Your task to perform on an android device: find which apps use the phone's location Image 0: 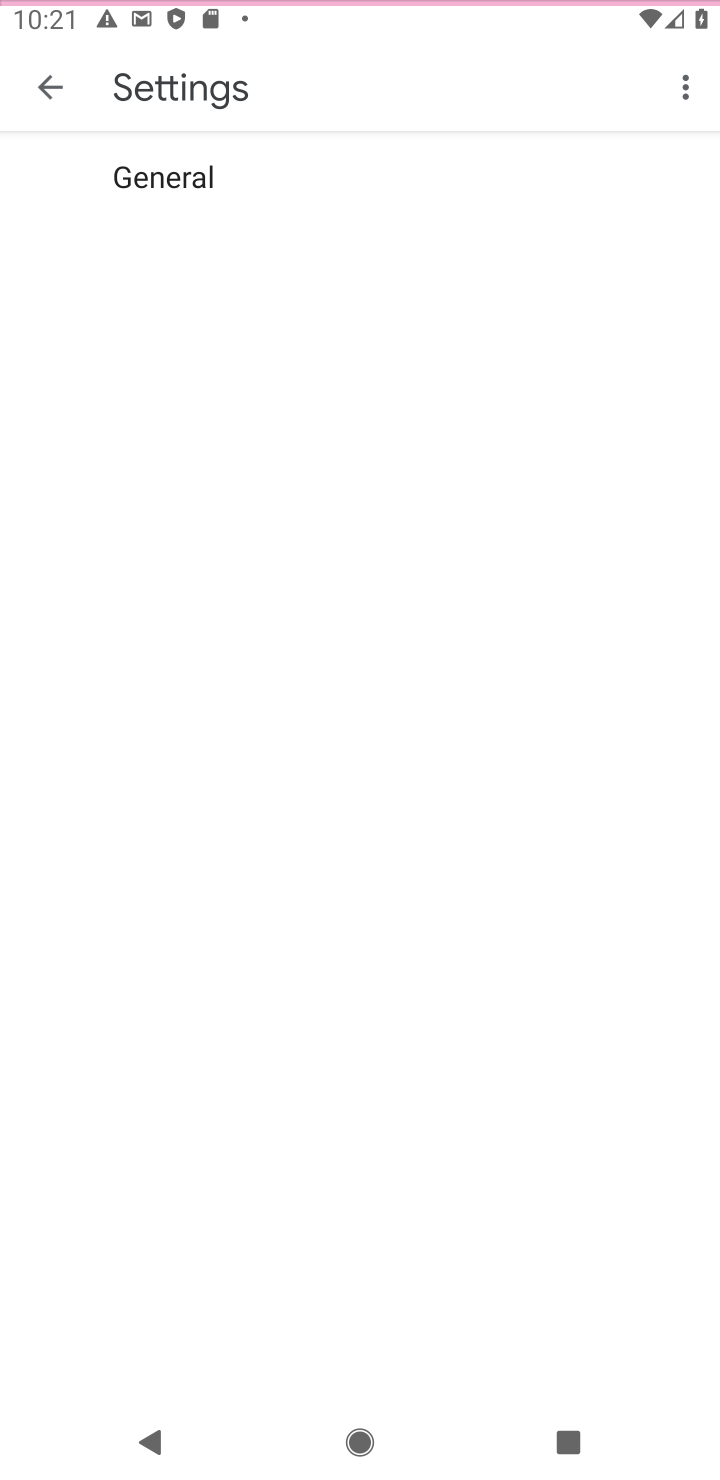
Step 0: drag from (359, 522) to (396, 1470)
Your task to perform on an android device: find which apps use the phone's location Image 1: 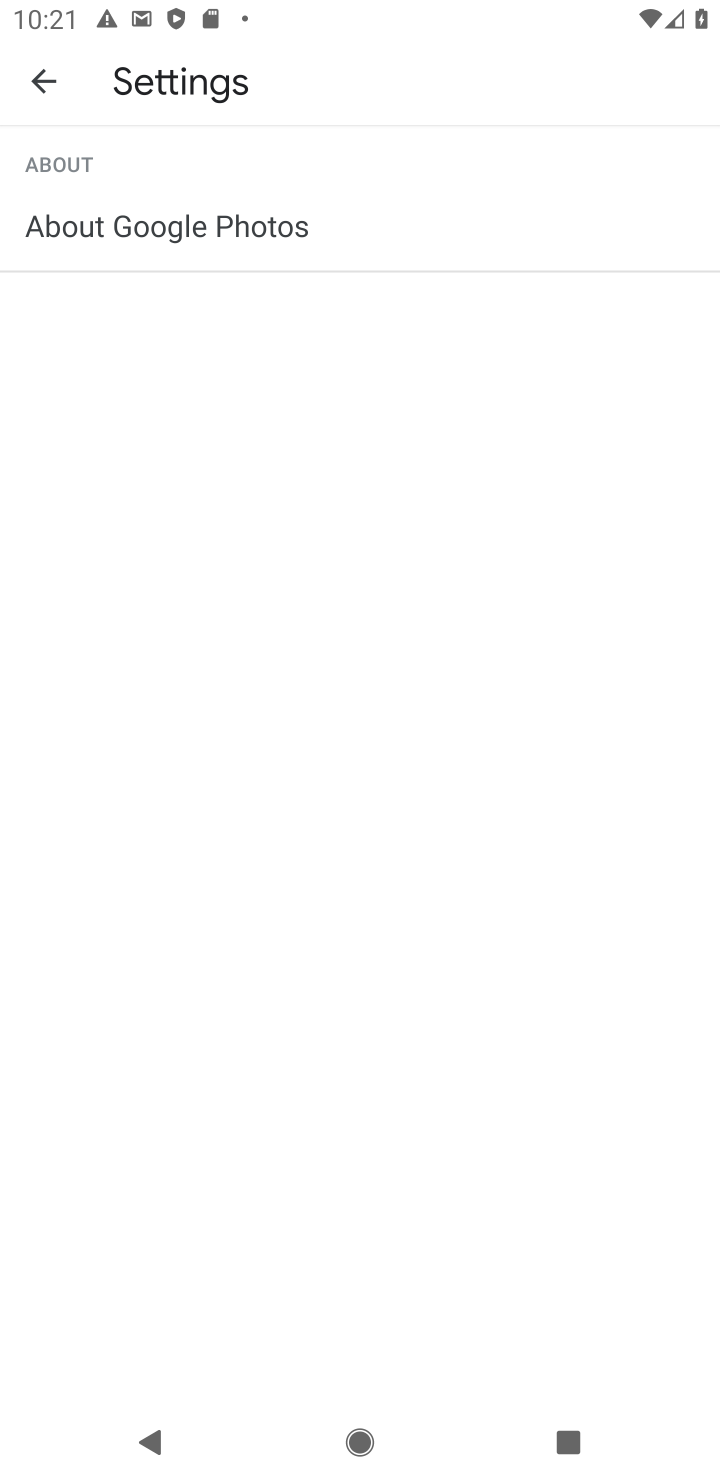
Step 1: press home button
Your task to perform on an android device: find which apps use the phone's location Image 2: 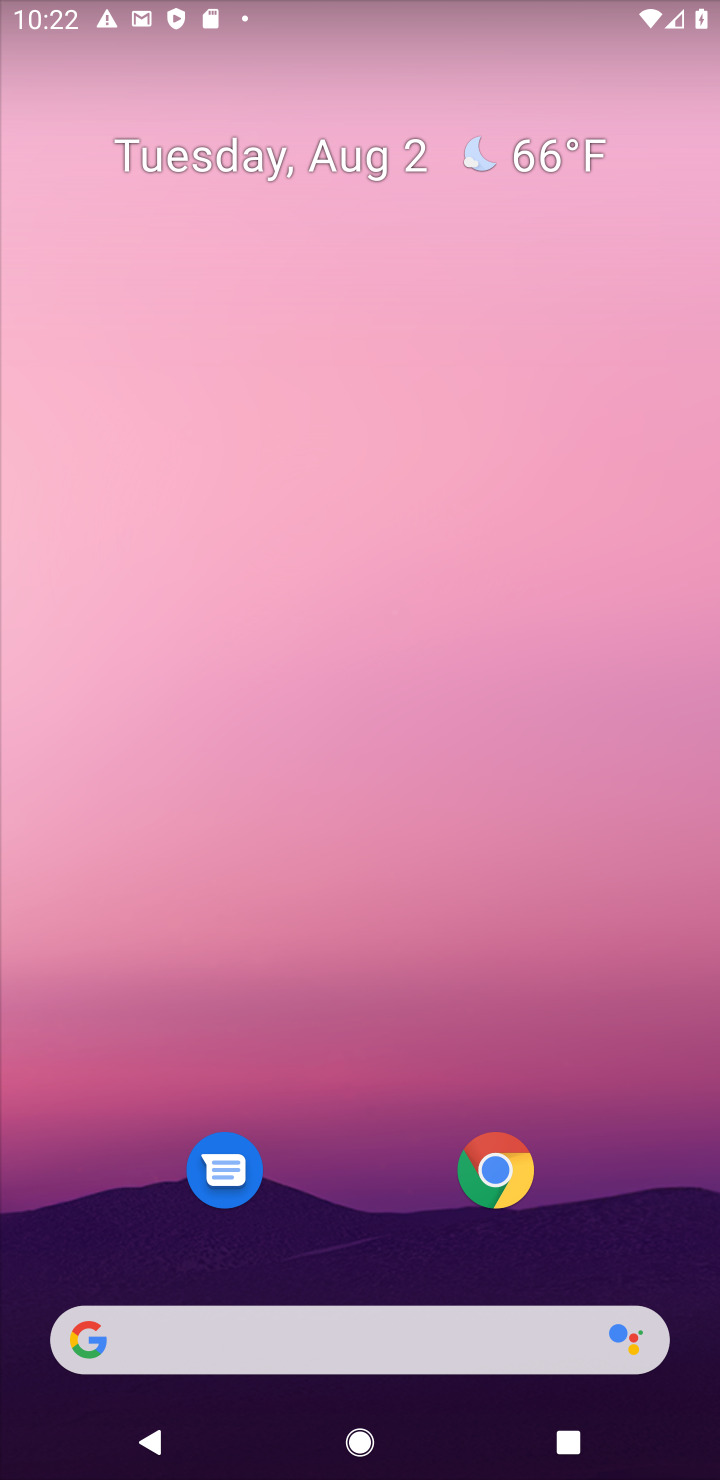
Step 2: drag from (272, 1143) to (326, 169)
Your task to perform on an android device: find which apps use the phone's location Image 3: 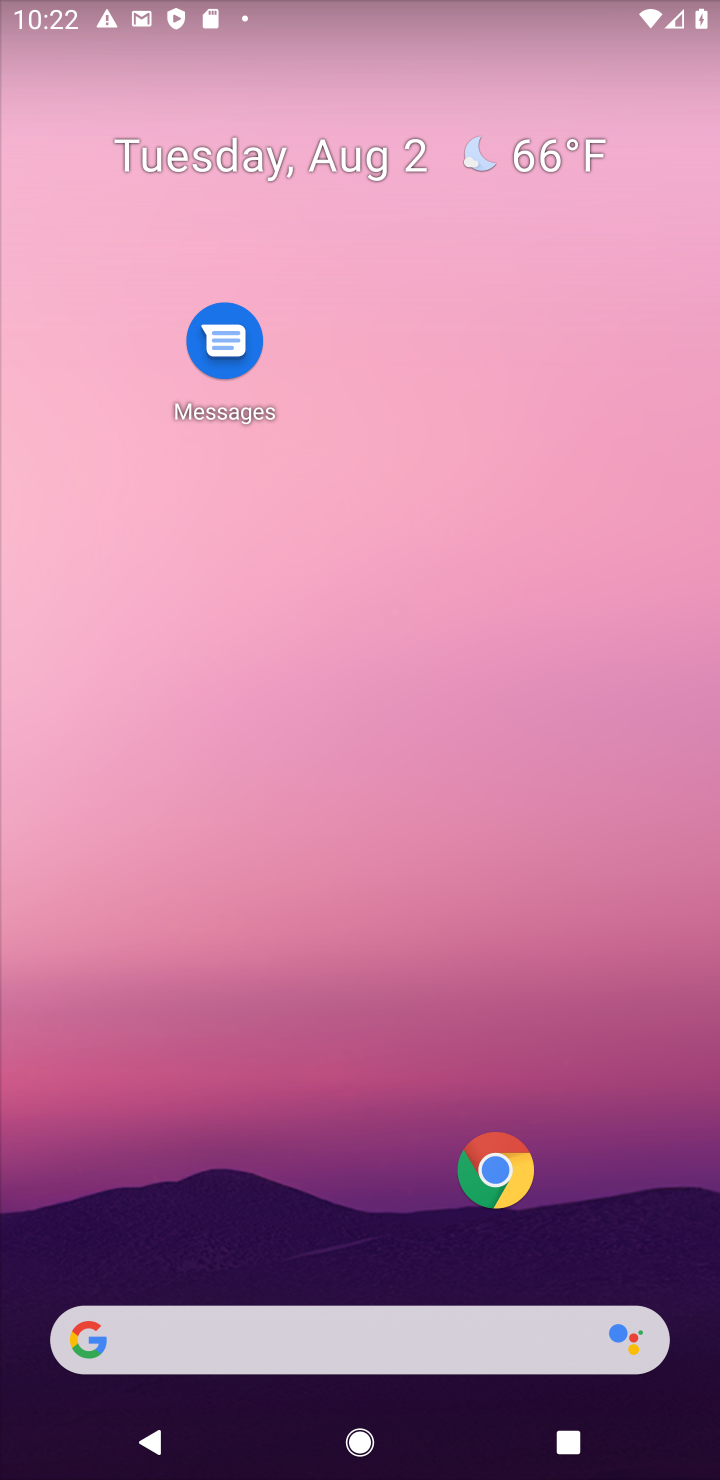
Step 3: drag from (350, 1226) to (406, 126)
Your task to perform on an android device: find which apps use the phone's location Image 4: 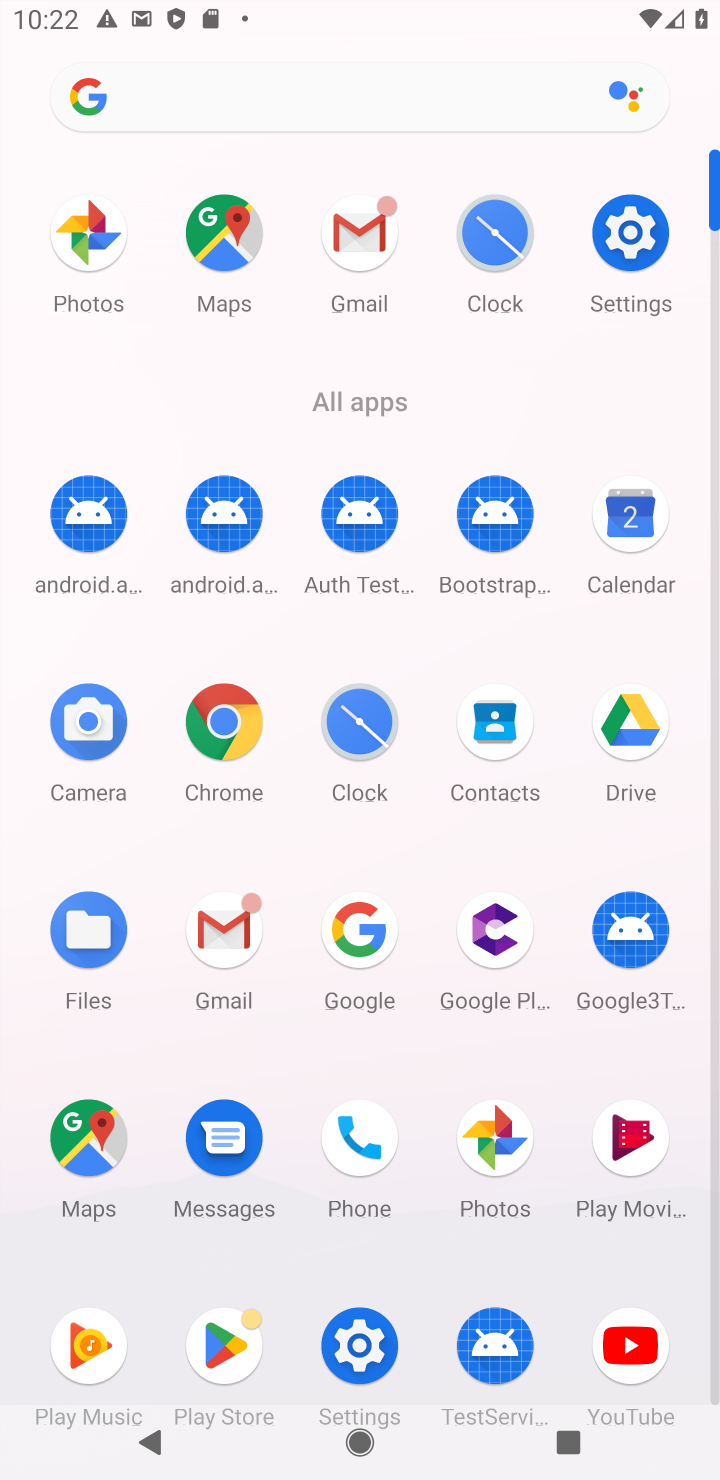
Step 4: click (214, 1333)
Your task to perform on an android device: find which apps use the phone's location Image 5: 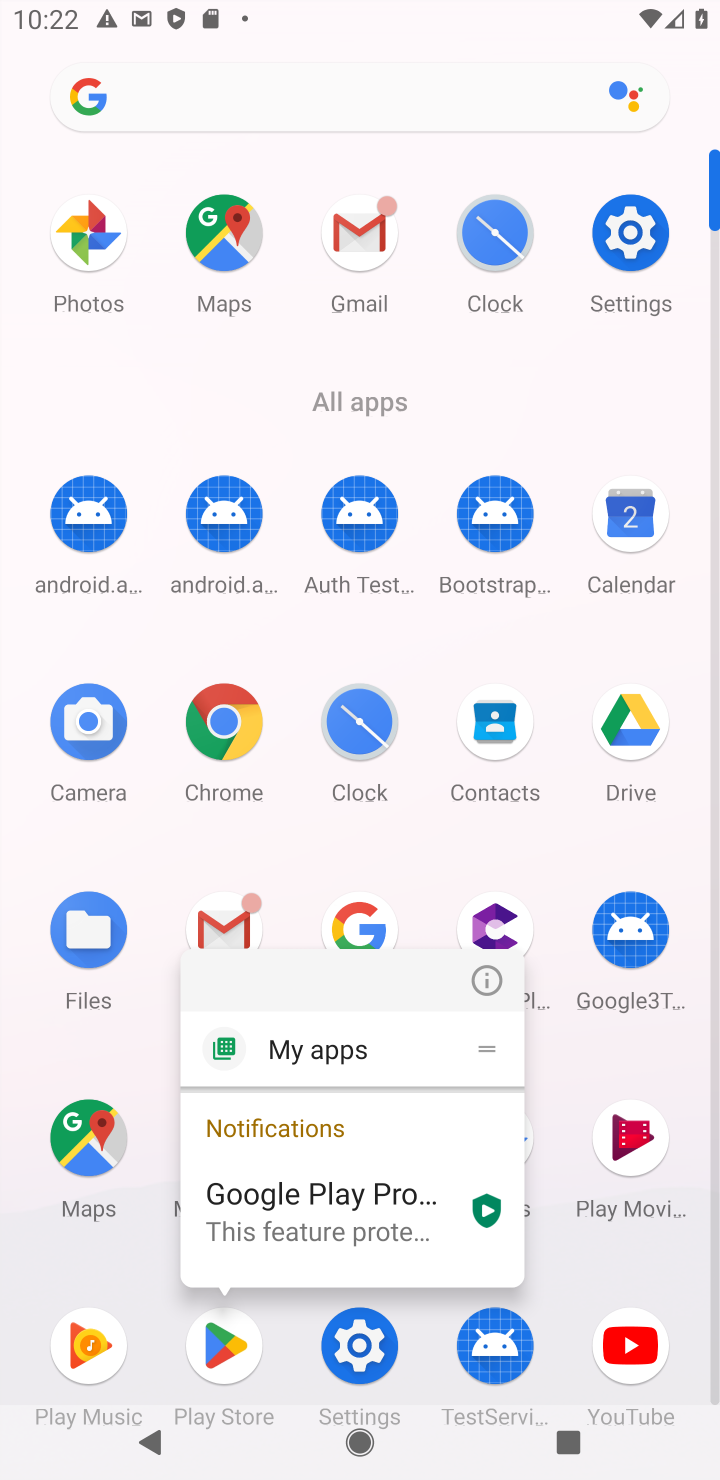
Step 5: click (487, 989)
Your task to perform on an android device: find which apps use the phone's location Image 6: 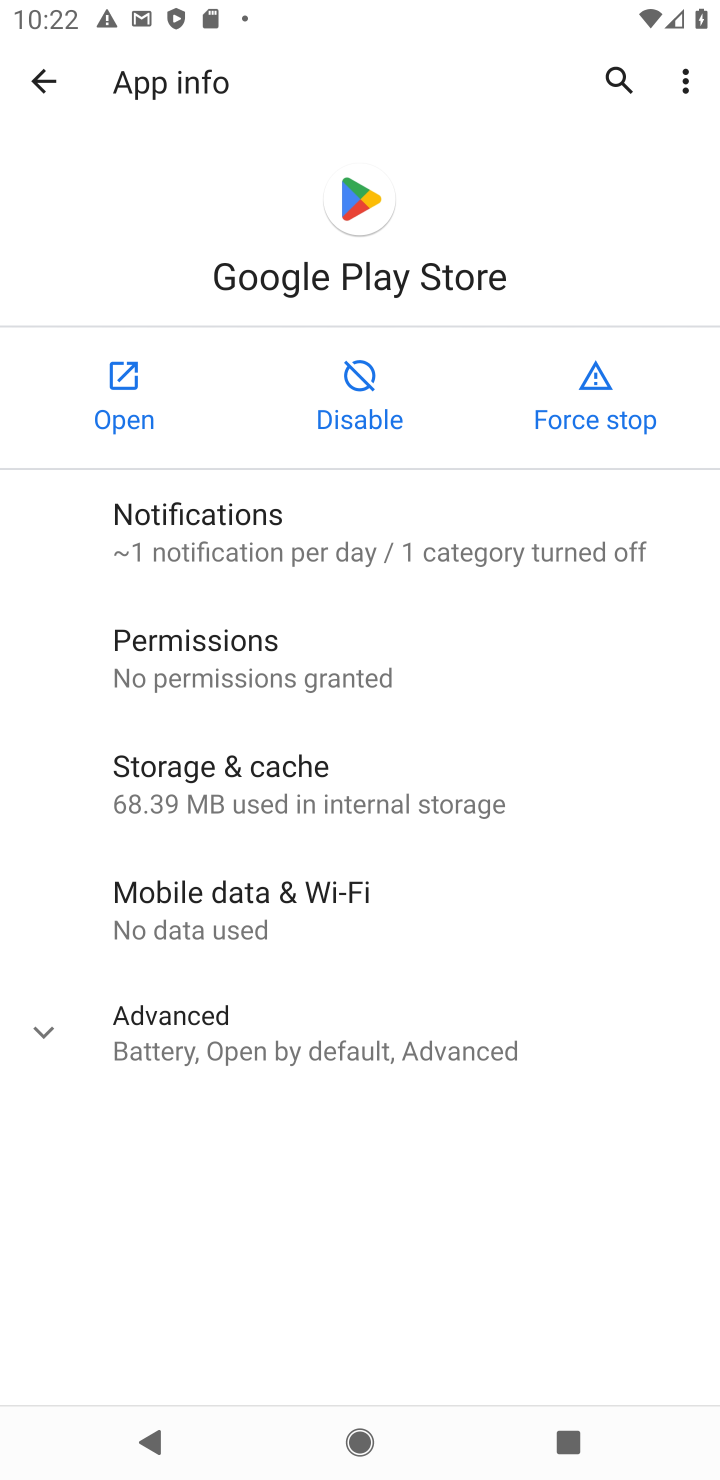
Step 6: click (89, 361)
Your task to perform on an android device: find which apps use the phone's location Image 7: 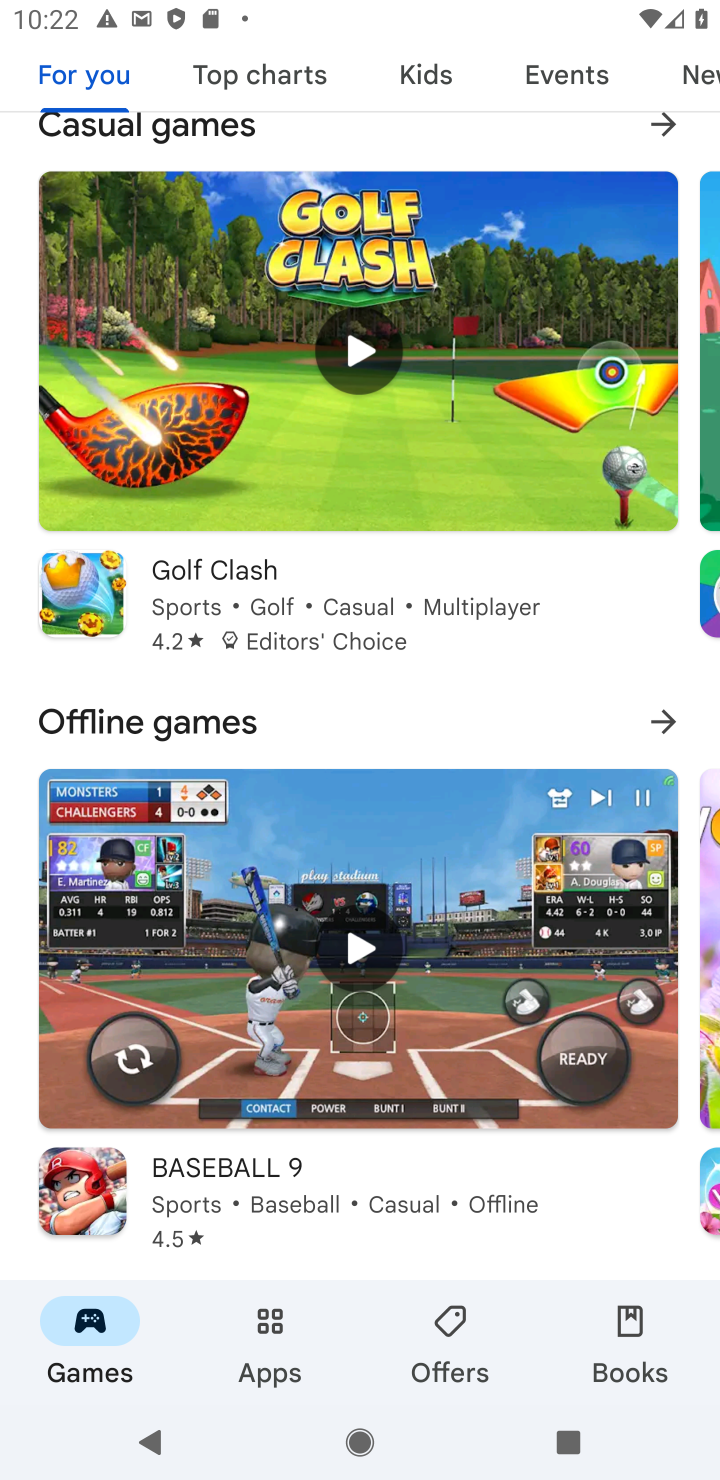
Step 7: drag from (349, 115) to (400, 1314)
Your task to perform on an android device: find which apps use the phone's location Image 8: 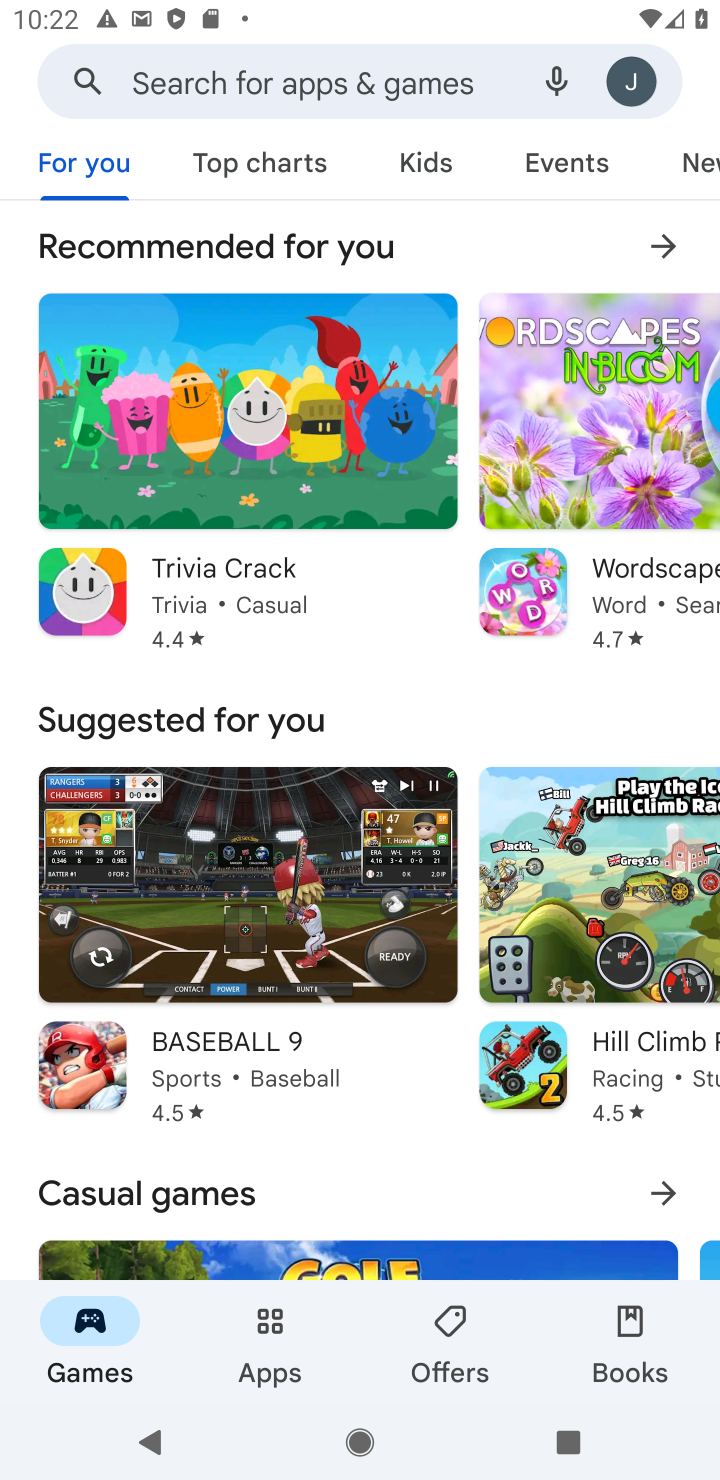
Step 8: click (377, 93)
Your task to perform on an android device: find which apps use the phone's location Image 9: 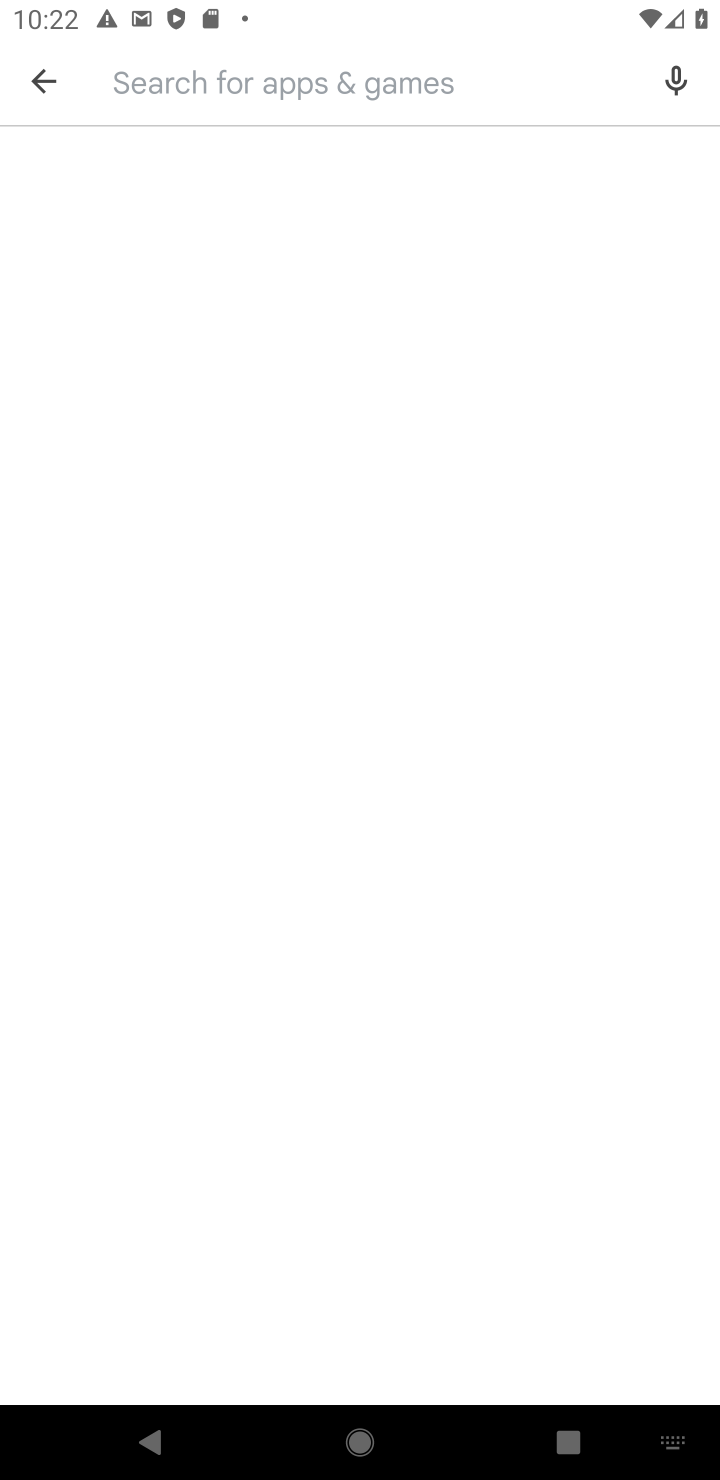
Step 9: click (41, 96)
Your task to perform on an android device: find which apps use the phone's location Image 10: 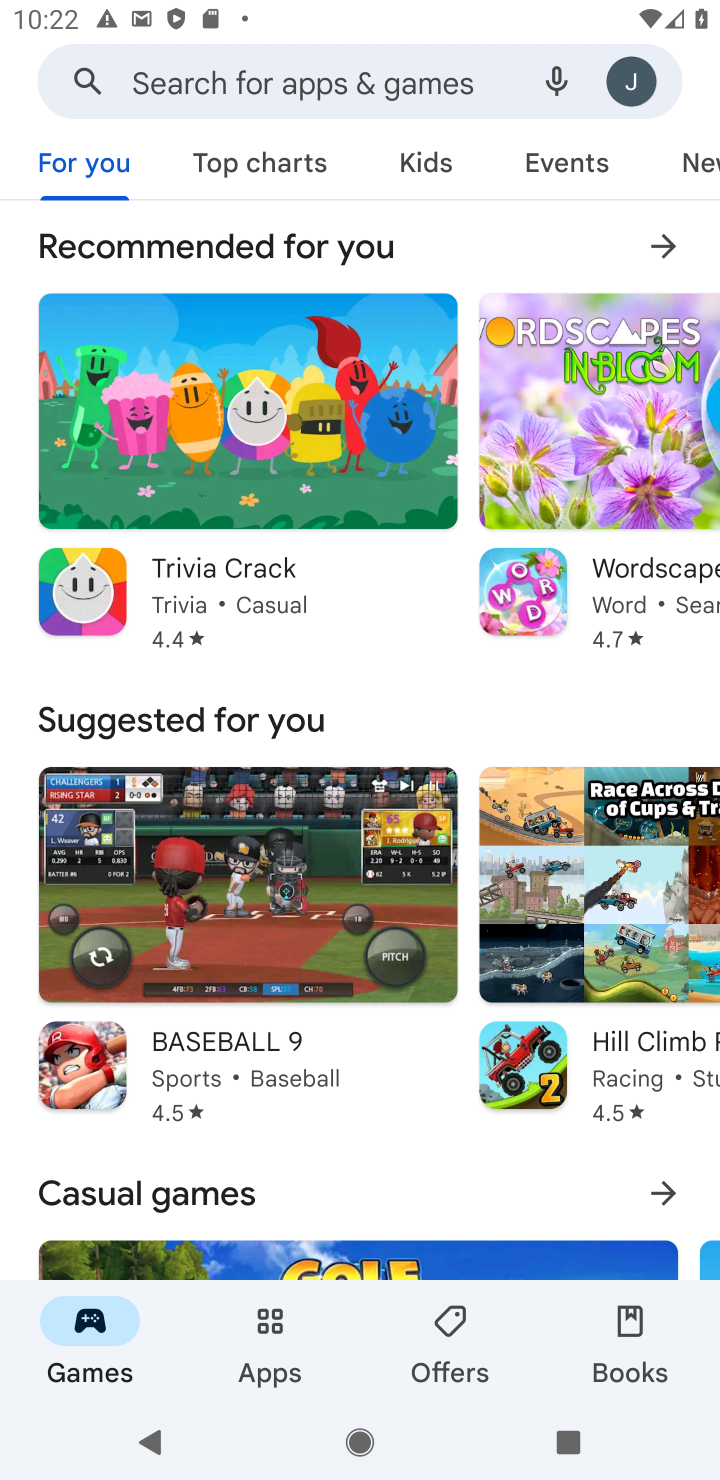
Step 10: press home button
Your task to perform on an android device: find which apps use the phone's location Image 11: 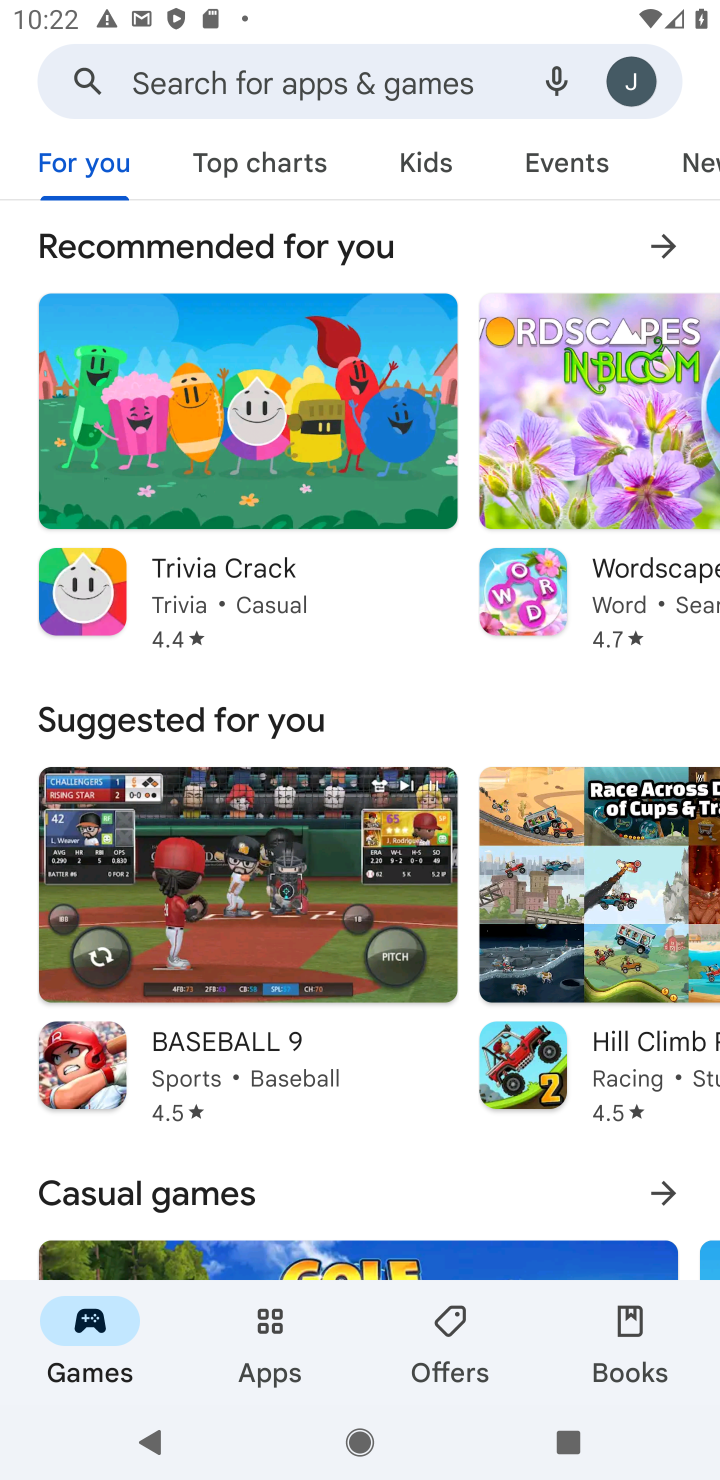
Step 11: click (326, 97)
Your task to perform on an android device: find which apps use the phone's location Image 12: 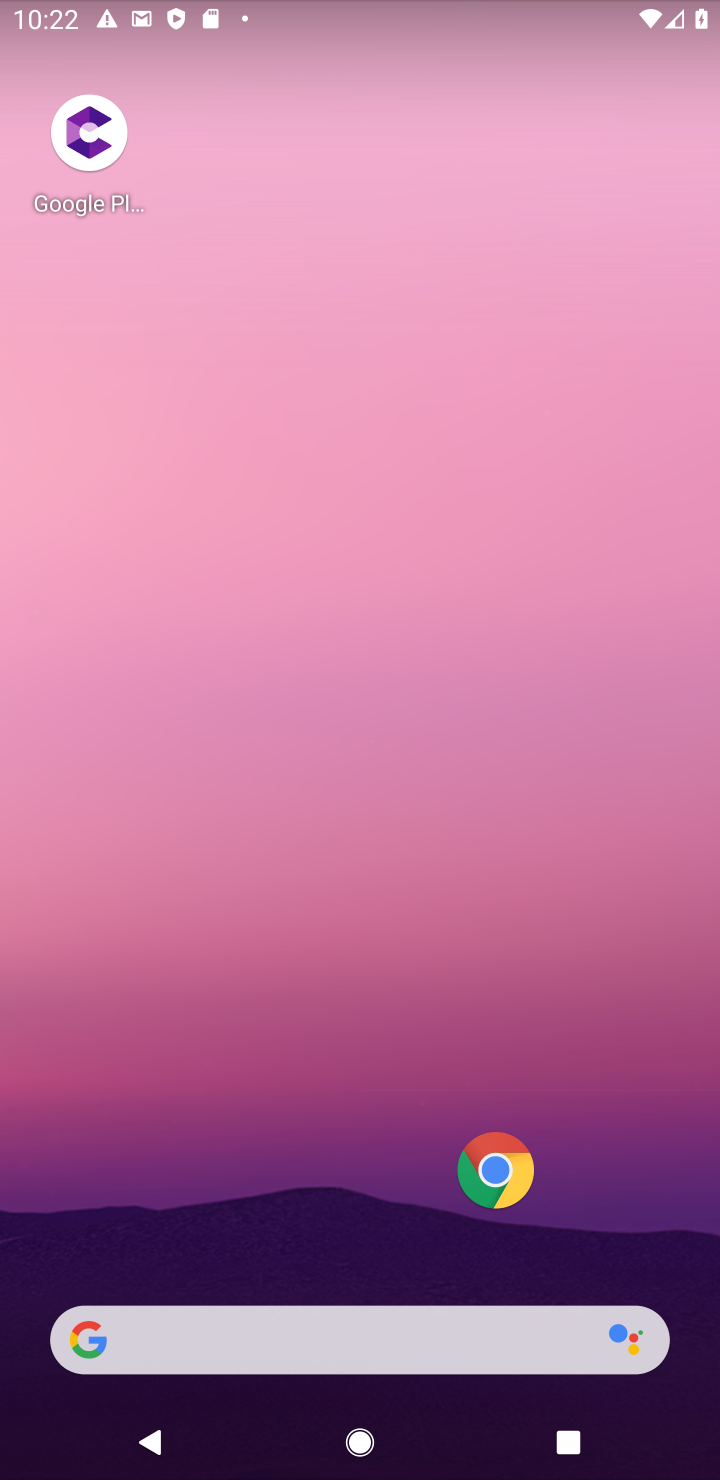
Step 12: drag from (422, 741) to (478, 322)
Your task to perform on an android device: find which apps use the phone's location Image 13: 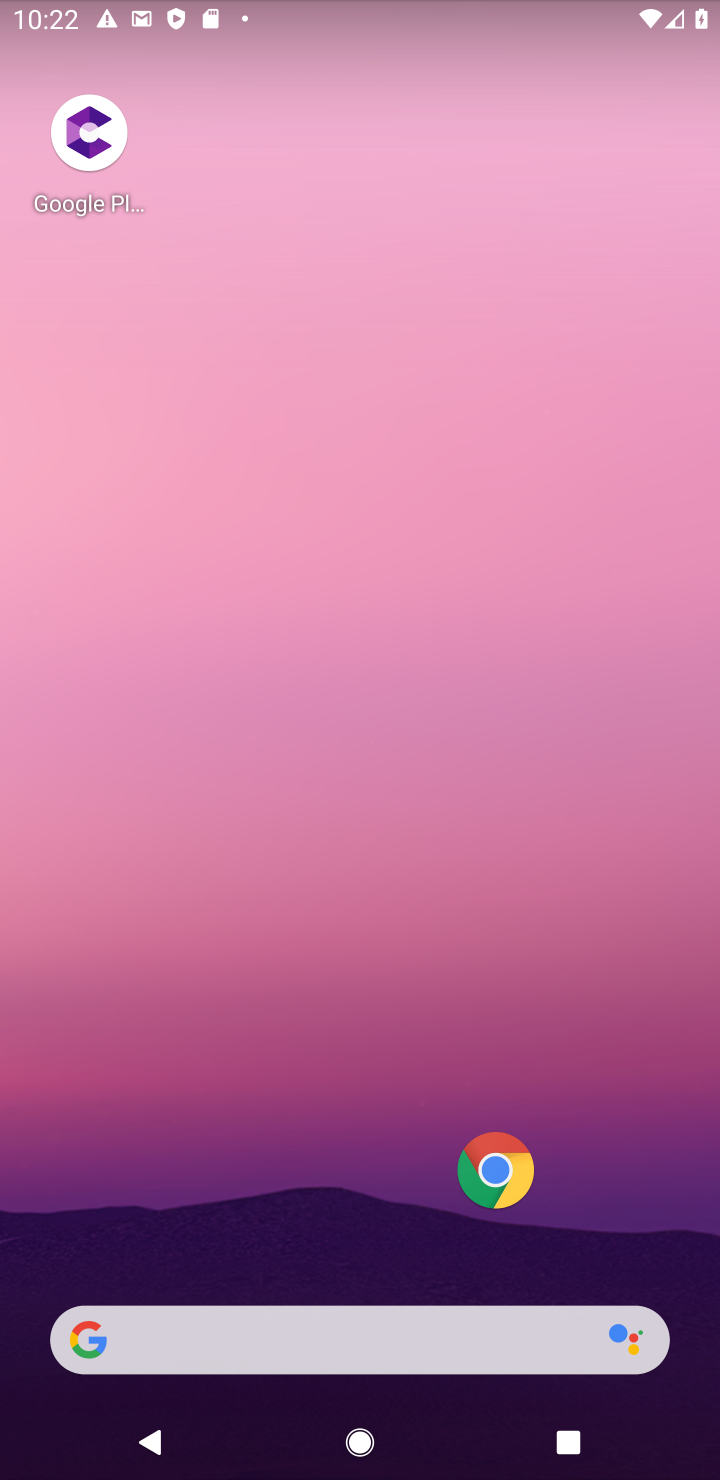
Step 13: drag from (352, 1221) to (493, 251)
Your task to perform on an android device: find which apps use the phone's location Image 14: 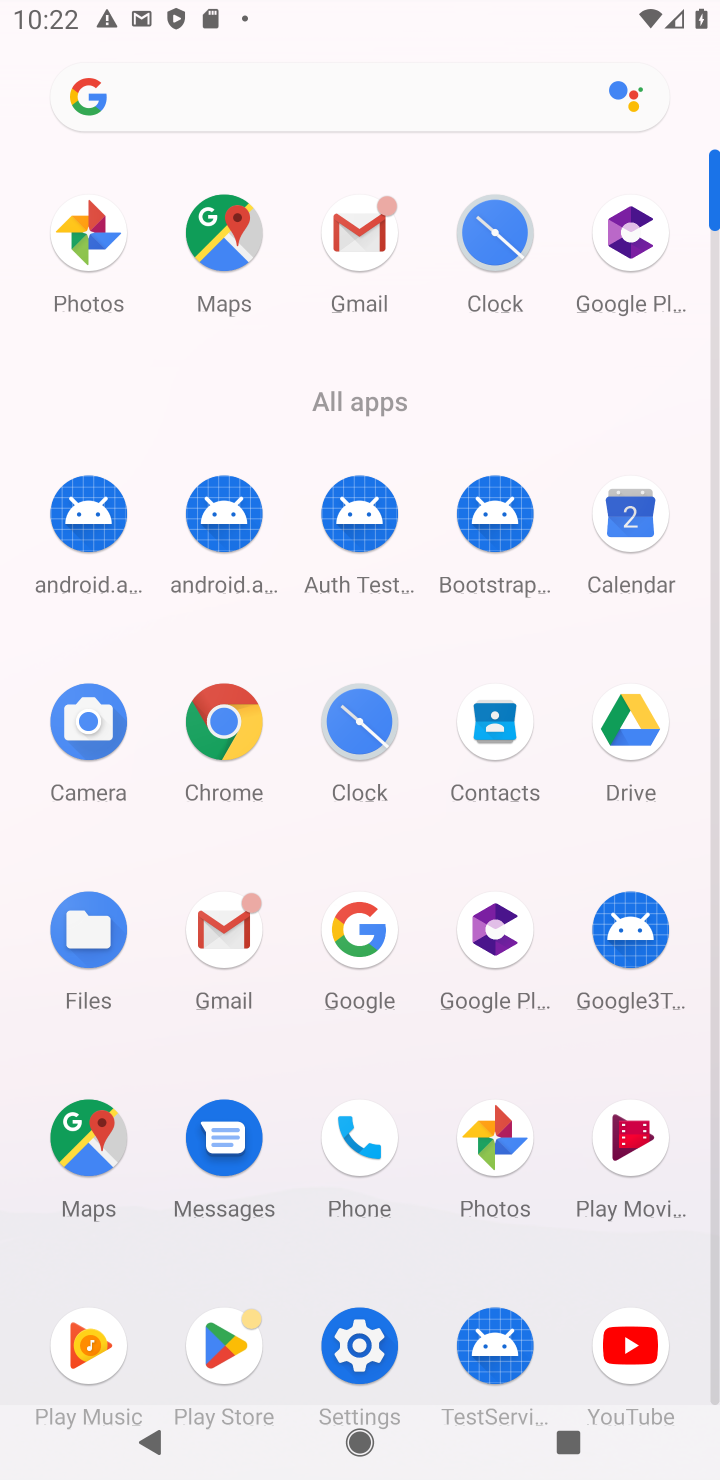
Step 14: drag from (427, 714) to (432, 476)
Your task to perform on an android device: find which apps use the phone's location Image 15: 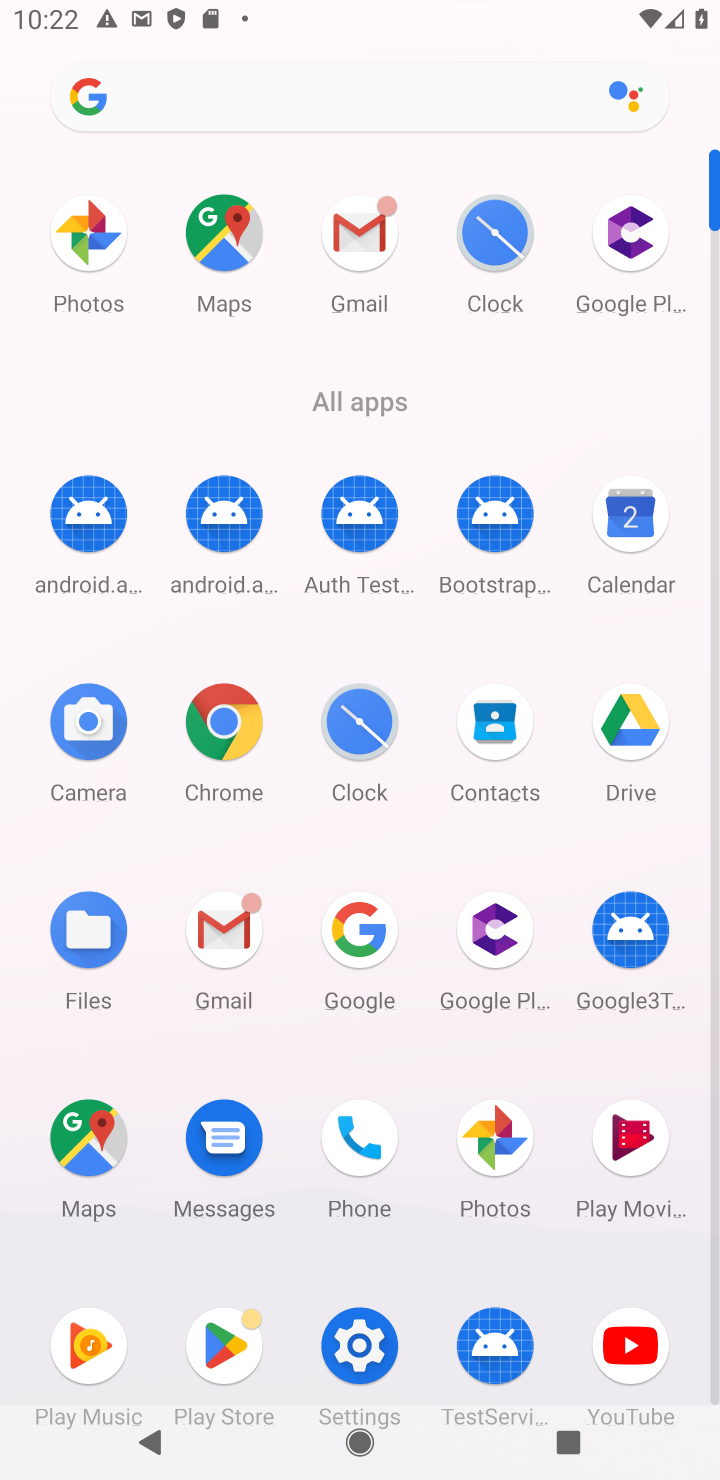
Step 15: click (365, 1327)
Your task to perform on an android device: find which apps use the phone's location Image 16: 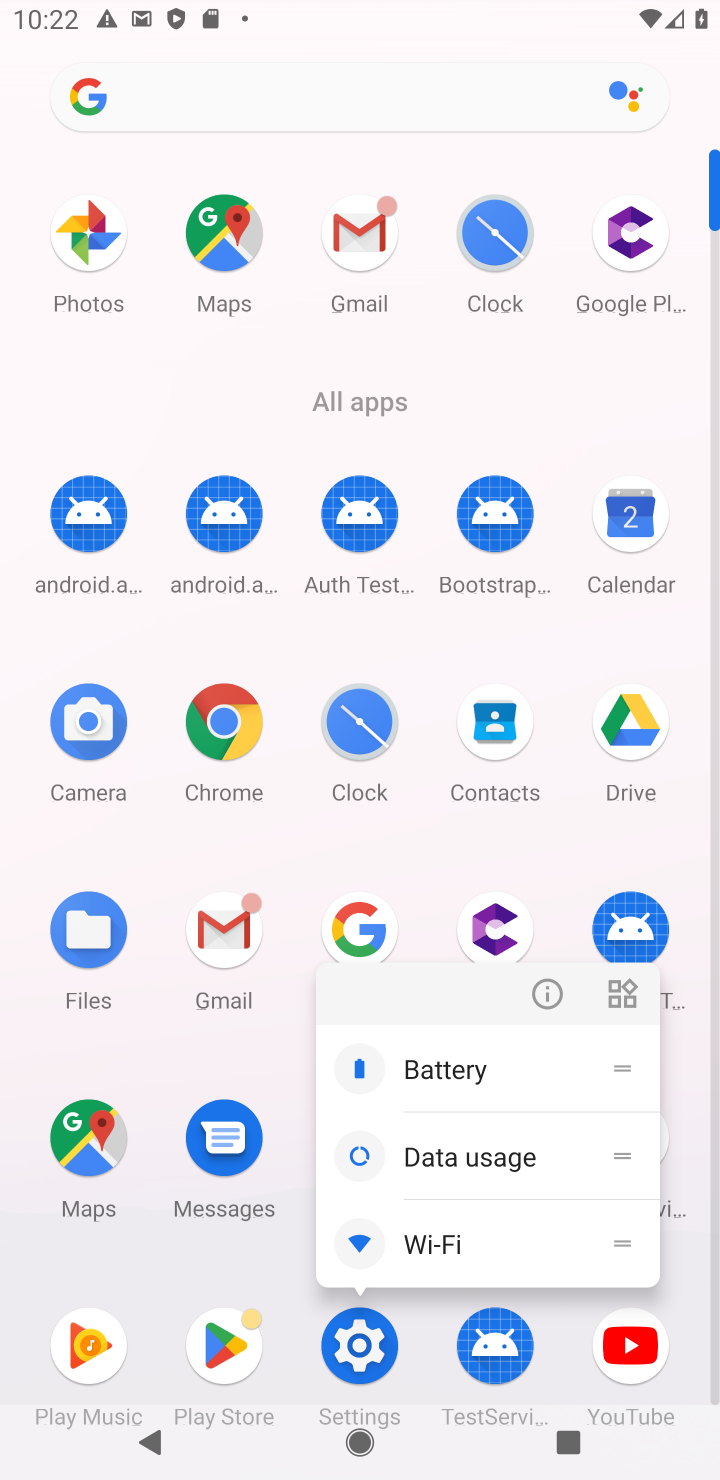
Step 16: click (539, 1002)
Your task to perform on an android device: find which apps use the phone's location Image 17: 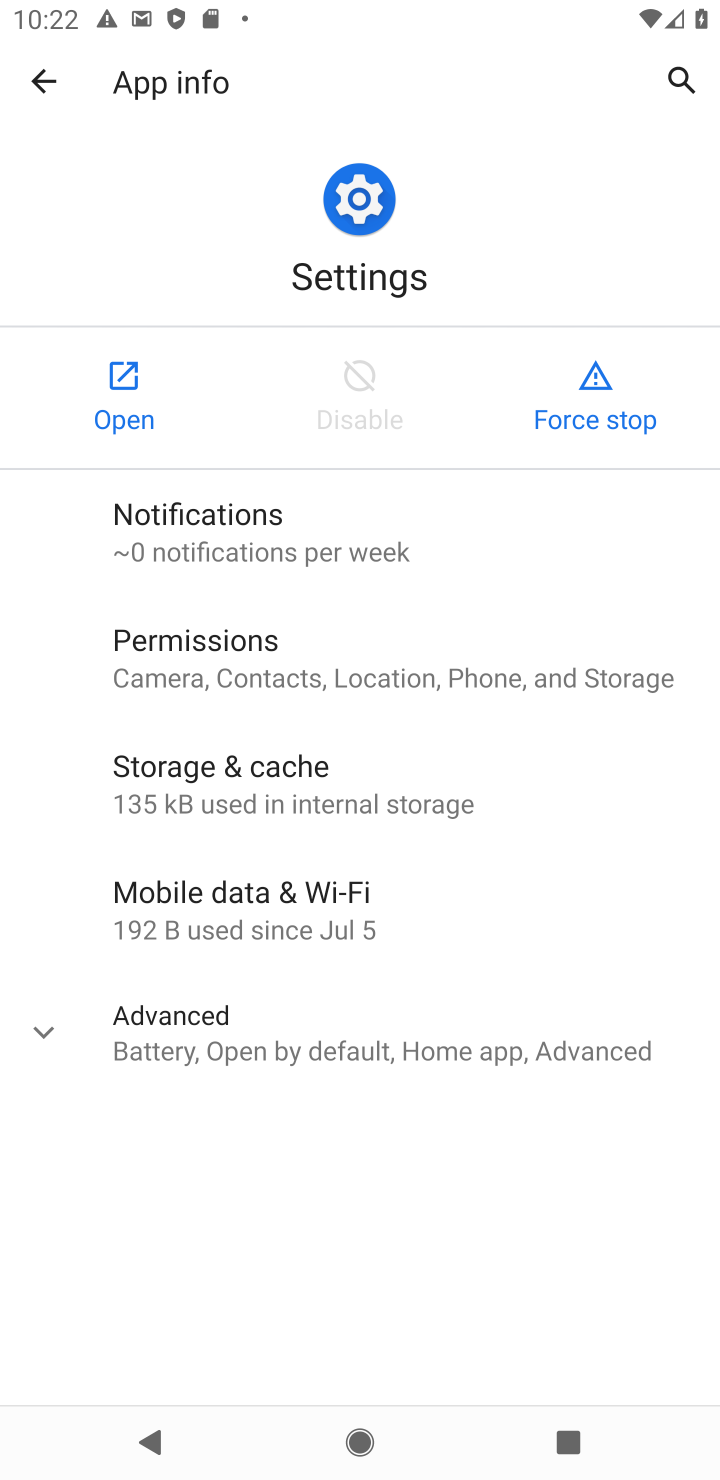
Step 17: click (154, 377)
Your task to perform on an android device: find which apps use the phone's location Image 18: 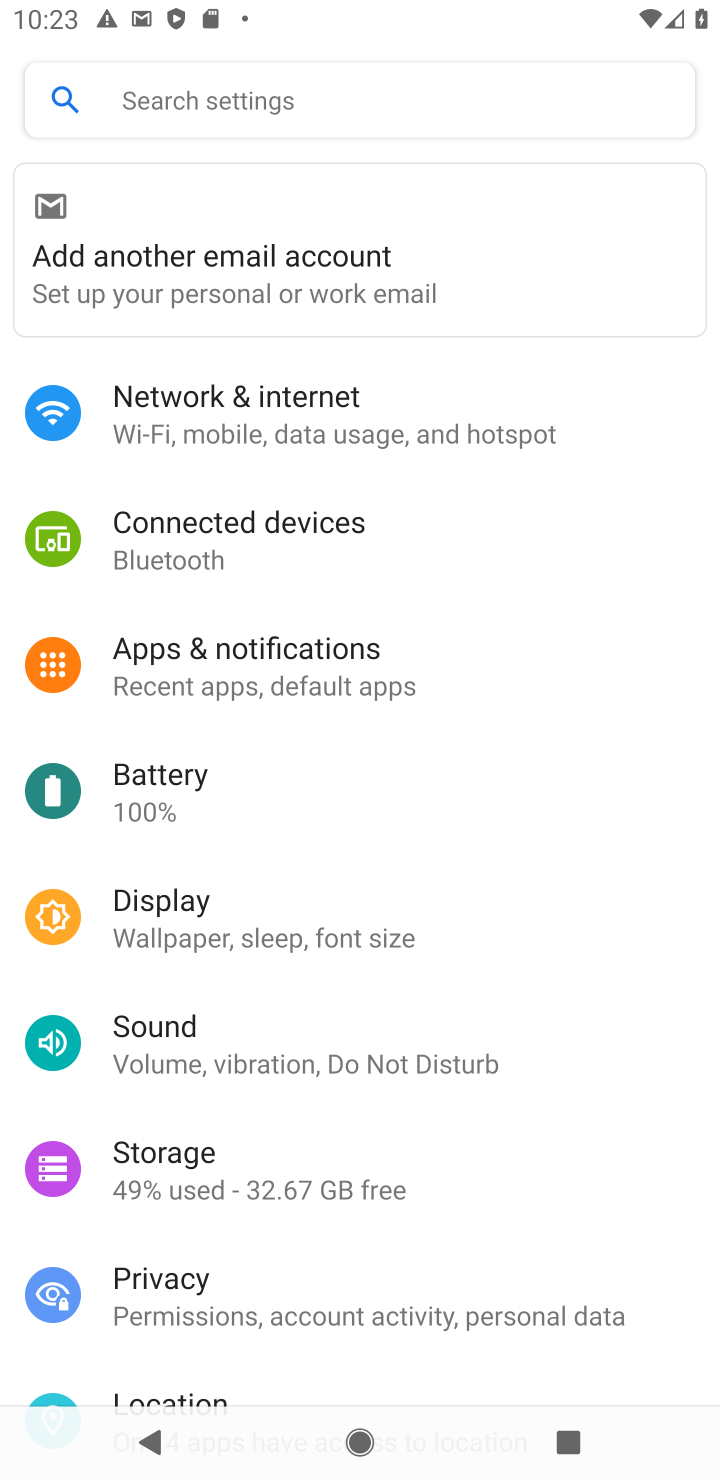
Step 18: click (187, 682)
Your task to perform on an android device: find which apps use the phone's location Image 19: 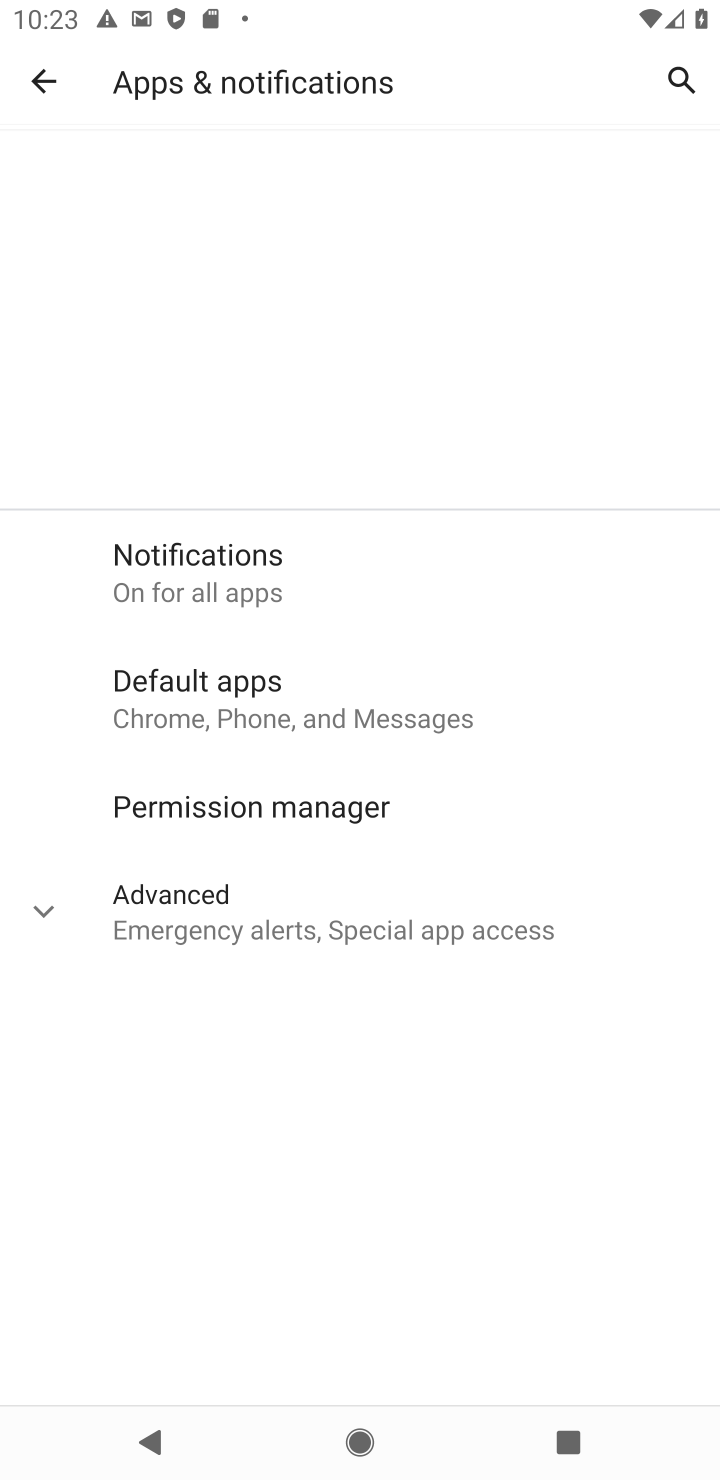
Step 19: drag from (374, 1198) to (405, 548)
Your task to perform on an android device: find which apps use the phone's location Image 20: 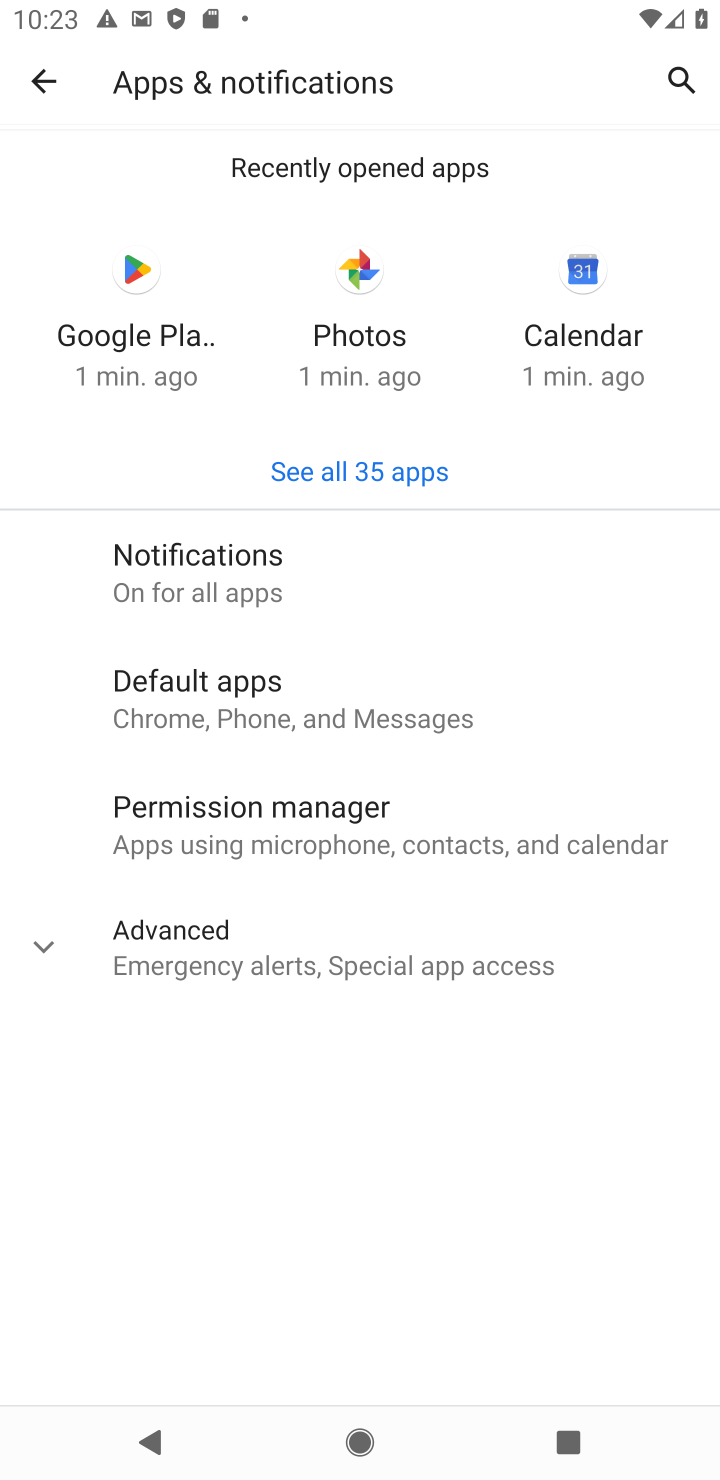
Step 20: click (76, 955)
Your task to perform on an android device: find which apps use the phone's location Image 21: 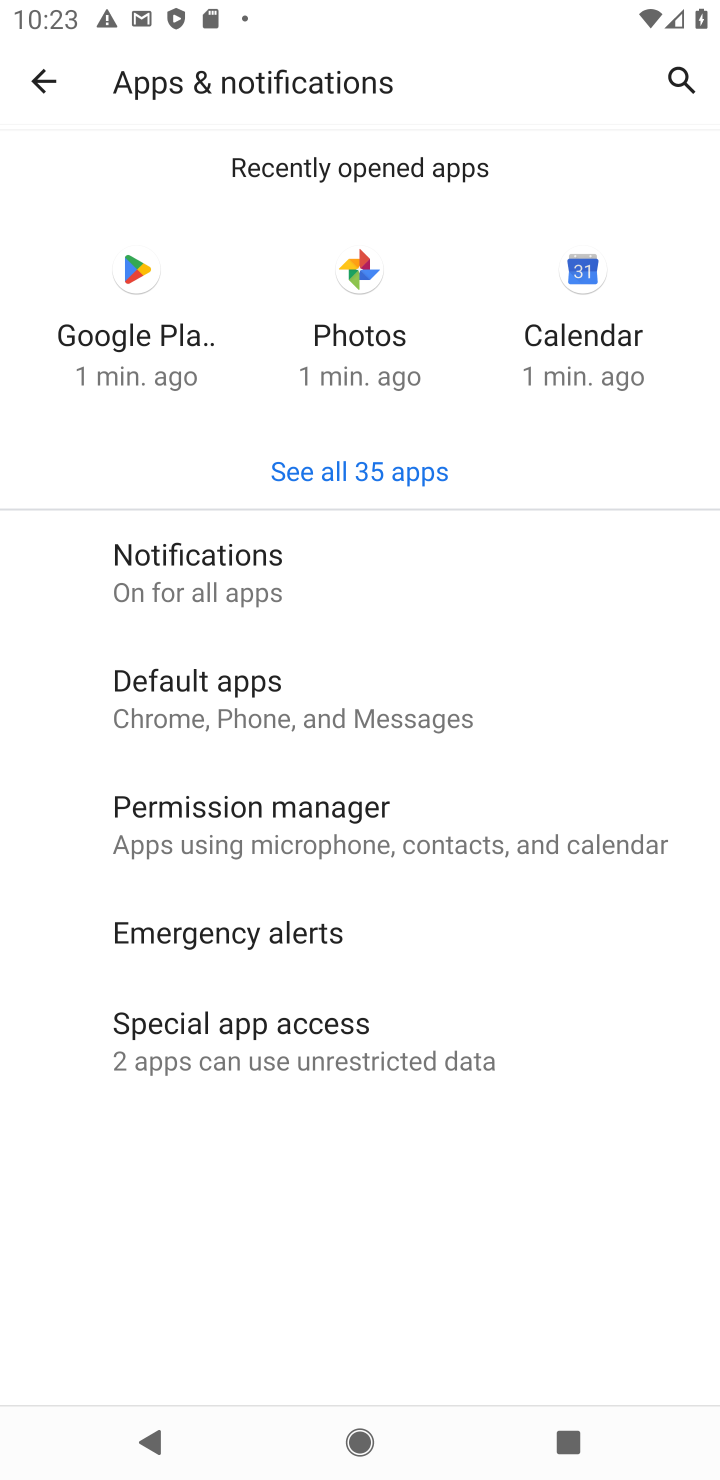
Step 21: drag from (439, 999) to (530, 579)
Your task to perform on an android device: find which apps use the phone's location Image 22: 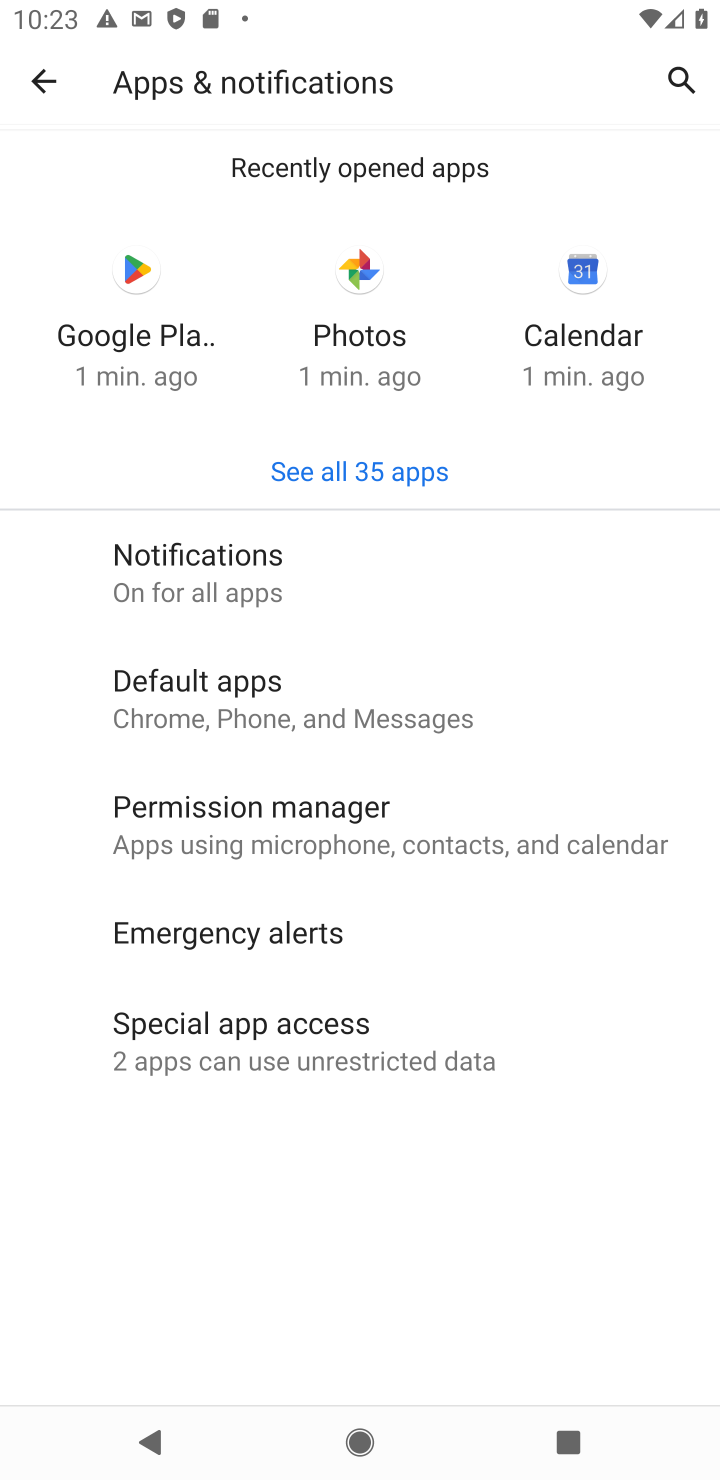
Step 22: click (290, 552)
Your task to perform on an android device: find which apps use the phone's location Image 23: 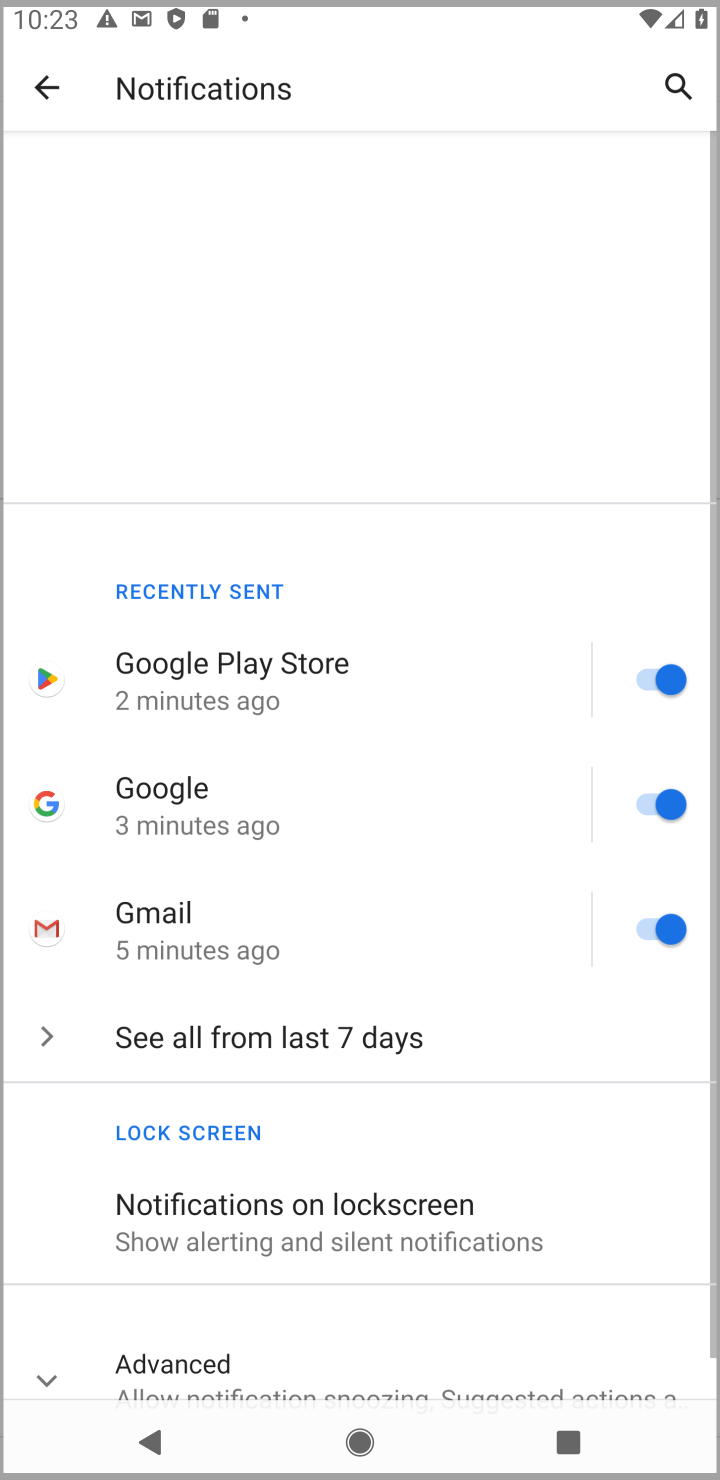
Step 23: drag from (459, 1119) to (462, 661)
Your task to perform on an android device: find which apps use the phone's location Image 24: 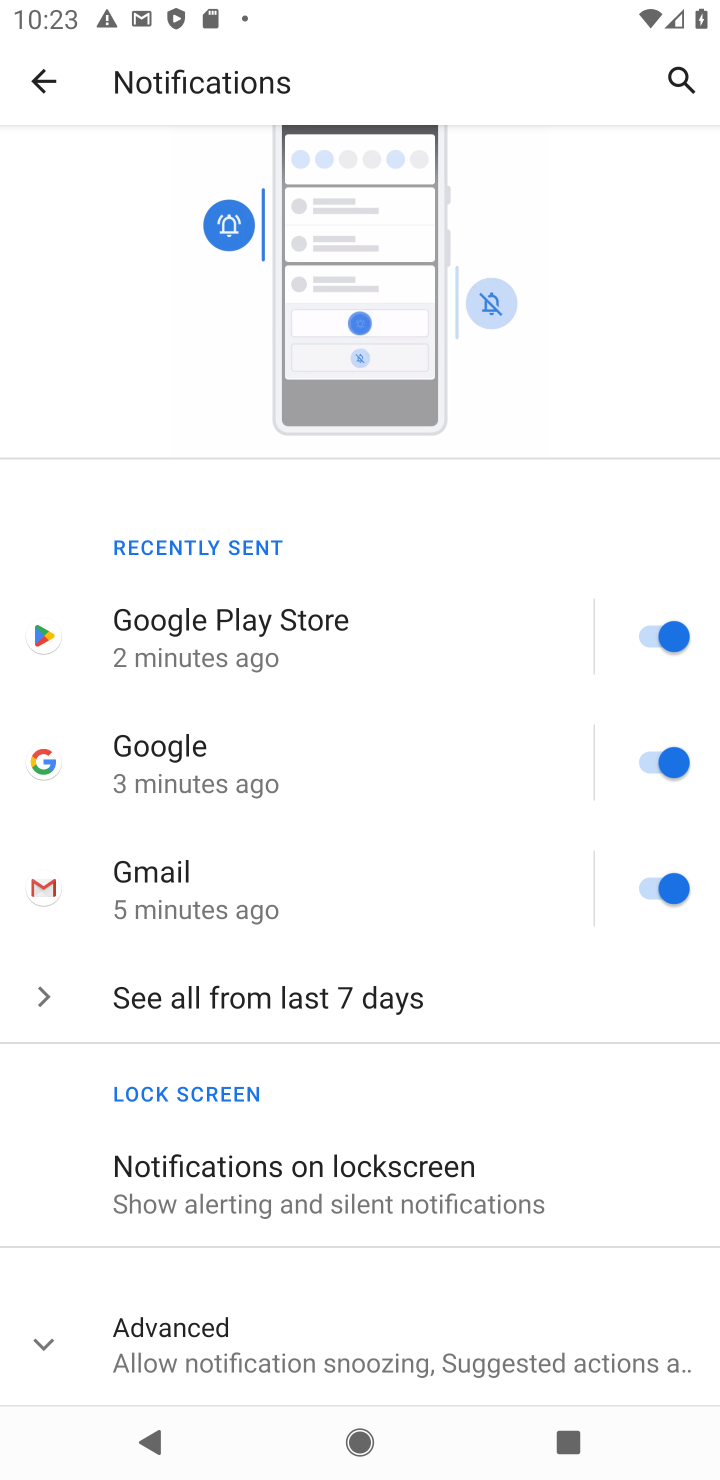
Step 24: click (59, 98)
Your task to perform on an android device: find which apps use the phone's location Image 25: 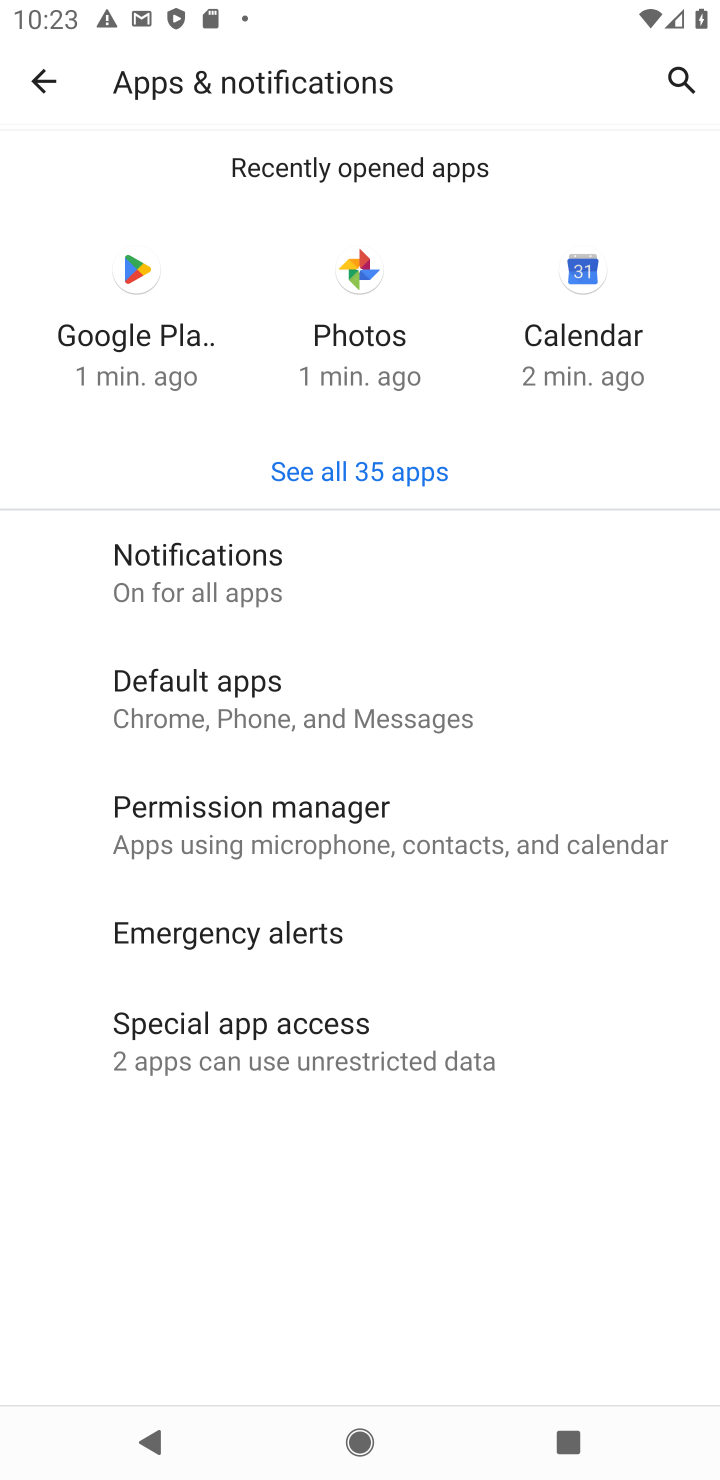
Step 25: click (40, 92)
Your task to perform on an android device: find which apps use the phone's location Image 26: 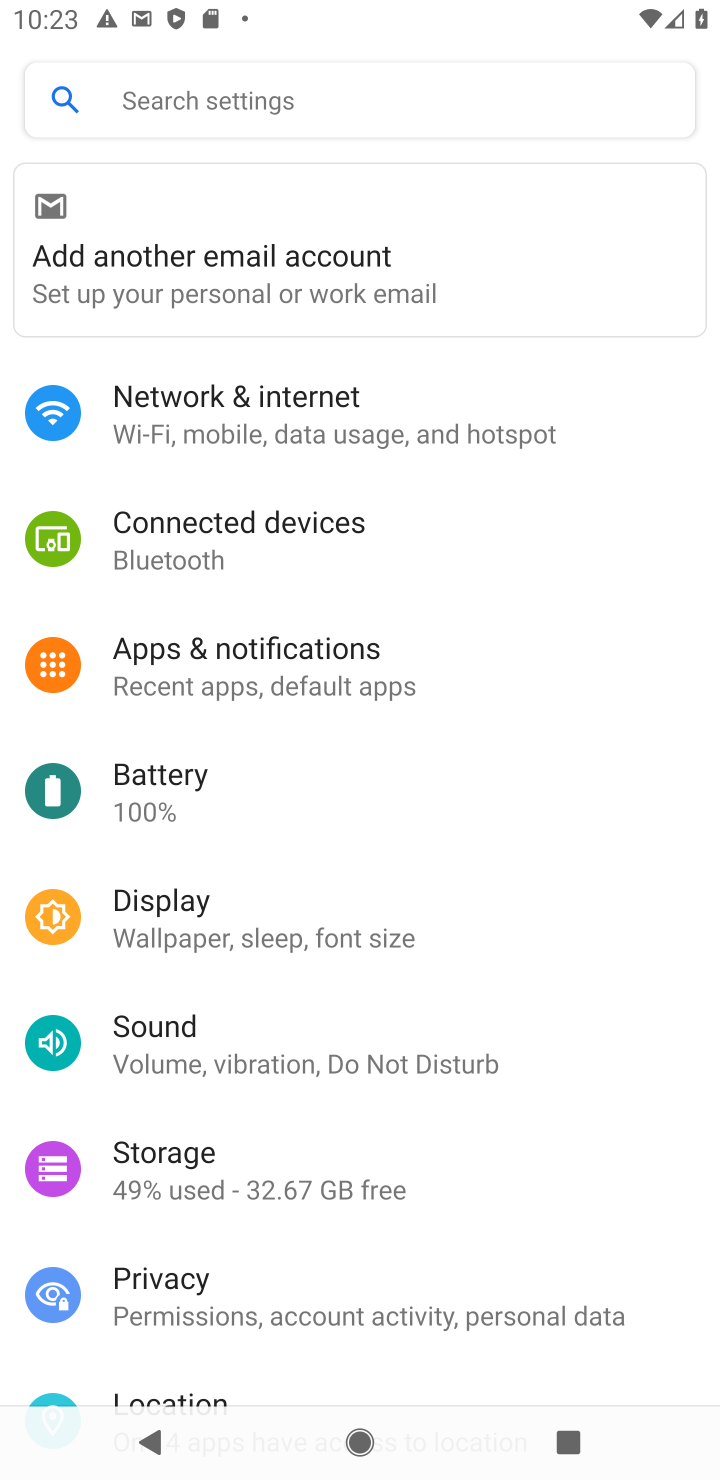
Step 26: drag from (399, 1141) to (456, 229)
Your task to perform on an android device: find which apps use the phone's location Image 27: 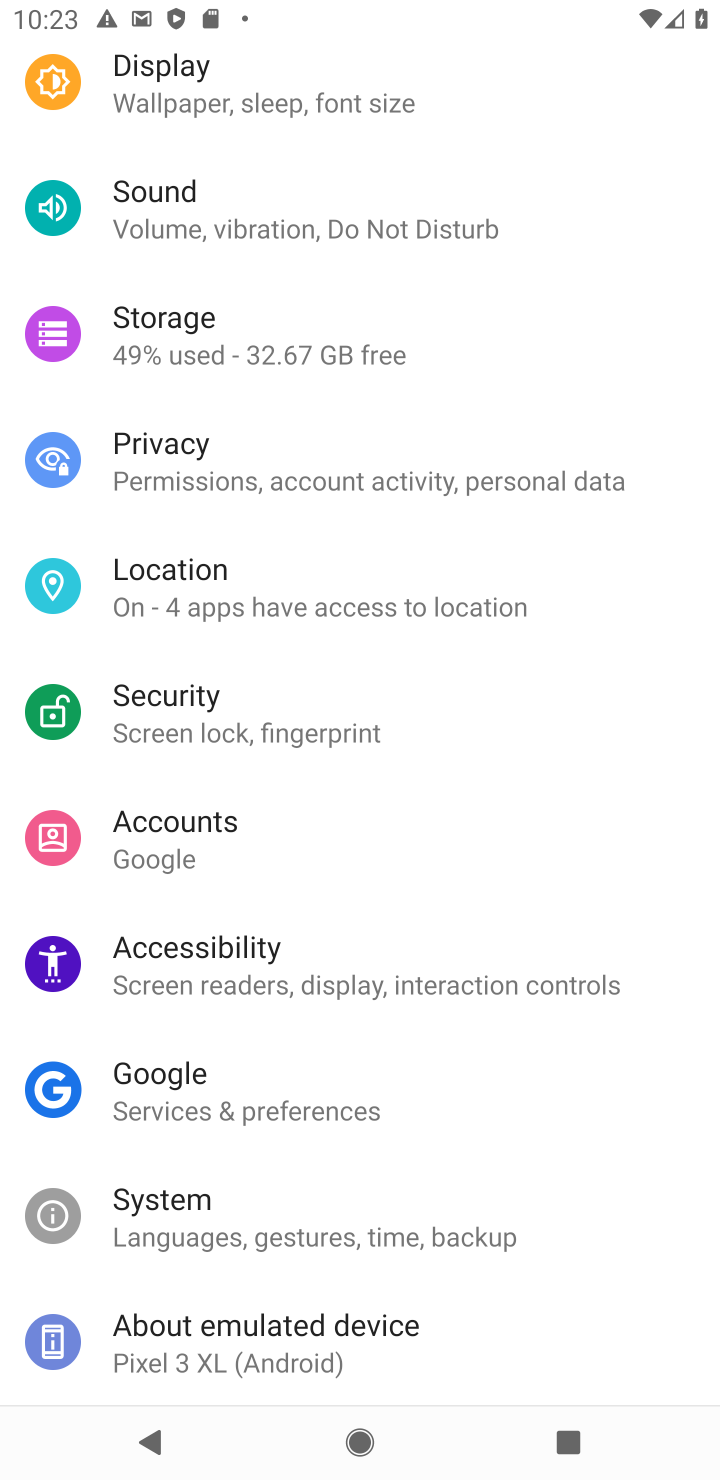
Step 27: click (212, 587)
Your task to perform on an android device: find which apps use the phone's location Image 28: 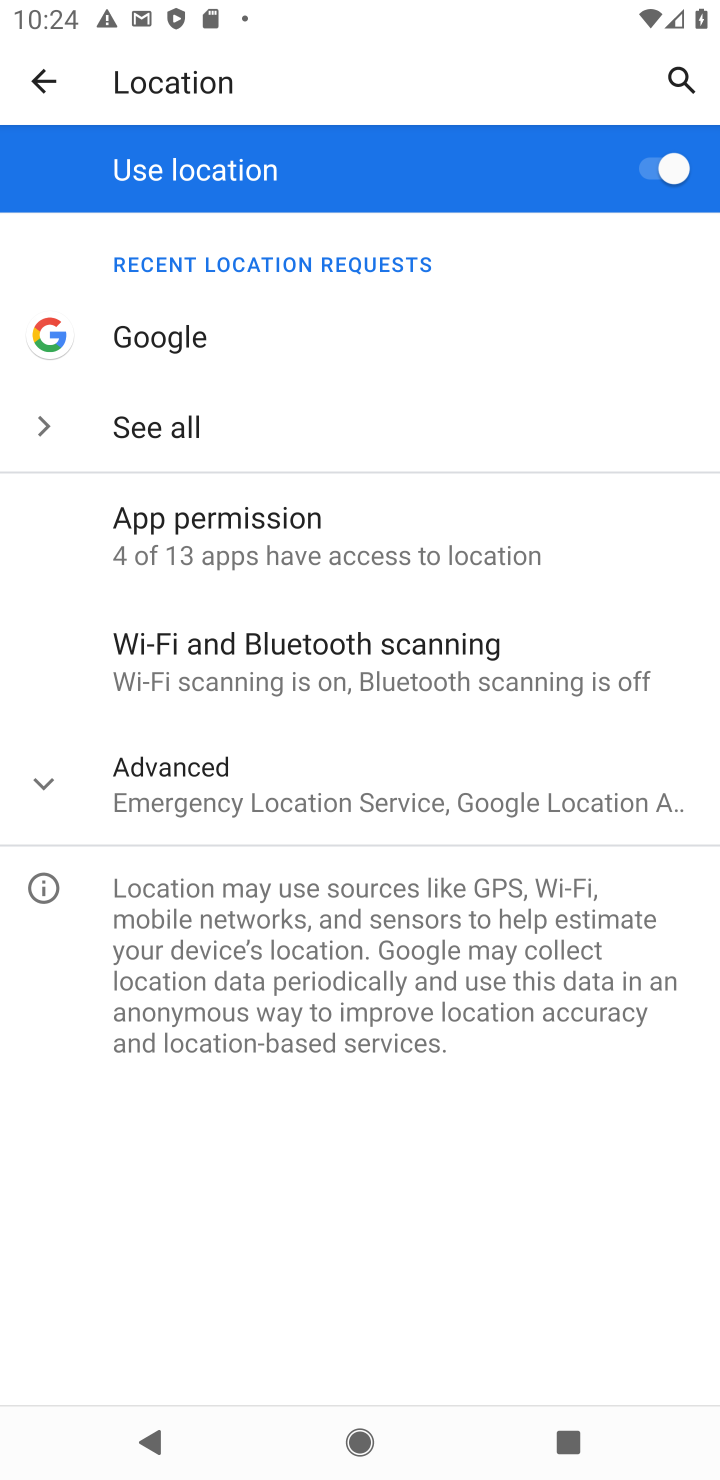
Step 28: click (366, 544)
Your task to perform on an android device: find which apps use the phone's location Image 29: 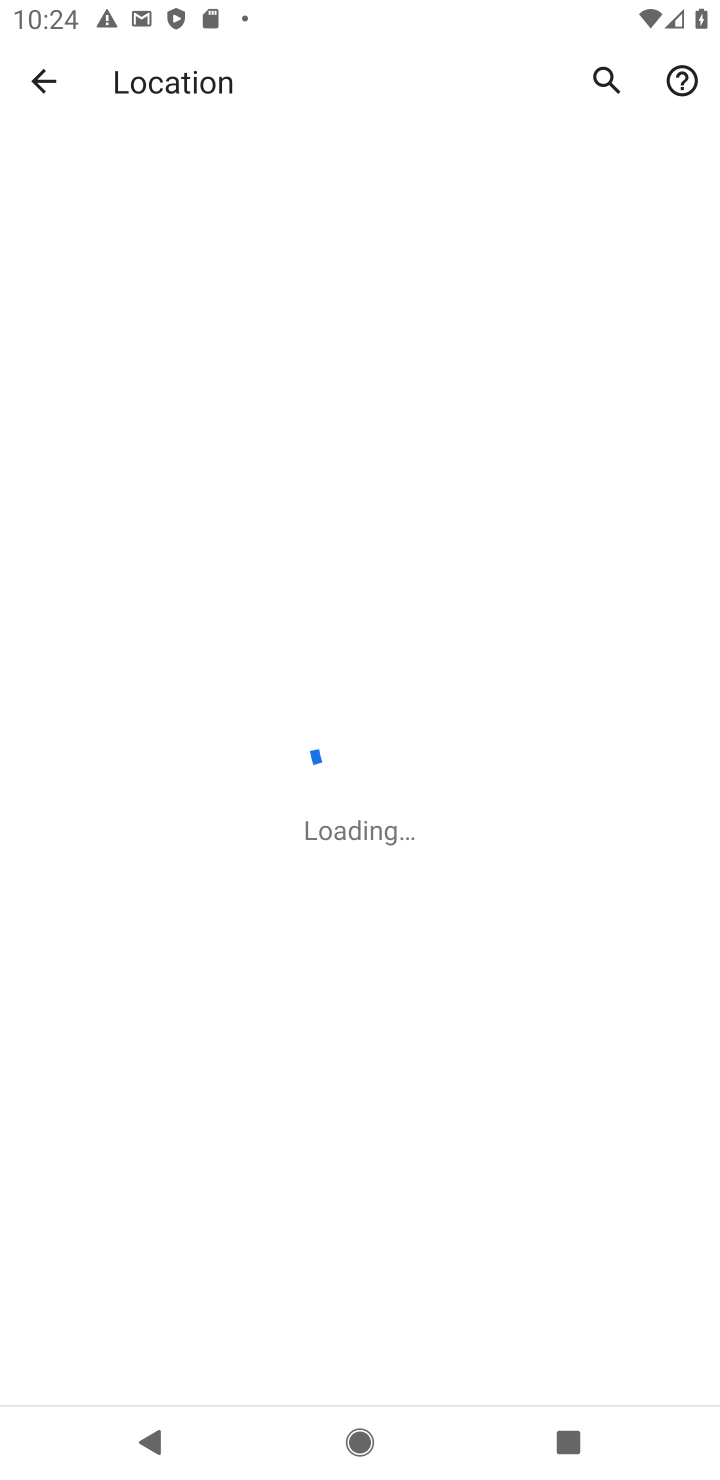
Step 29: task complete